Your task to perform on an android device: turn on wifi Image 0: 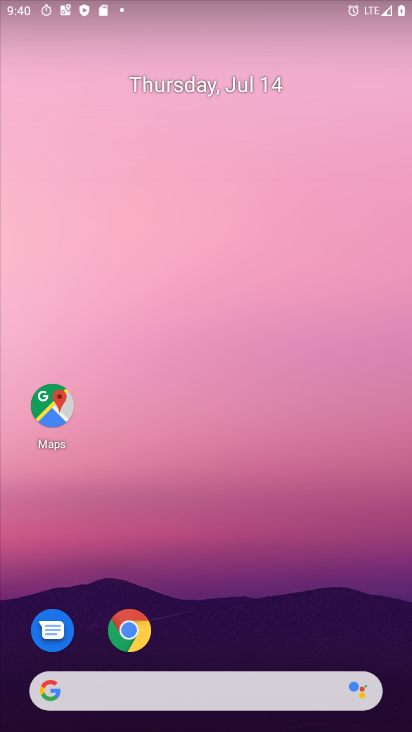
Step 0: drag from (221, 728) to (242, 186)
Your task to perform on an android device: turn on wifi Image 1: 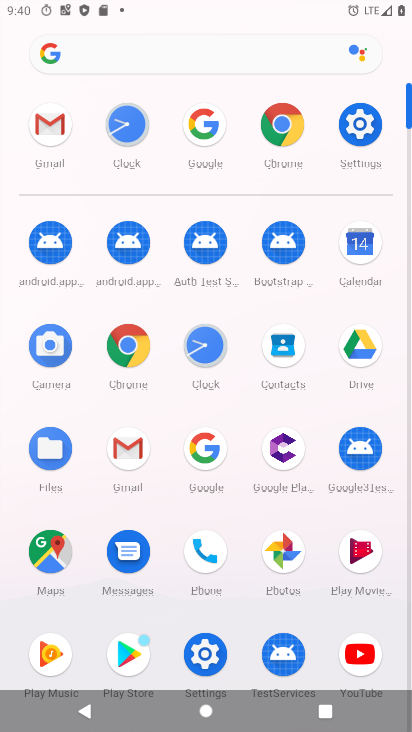
Step 1: click (360, 126)
Your task to perform on an android device: turn on wifi Image 2: 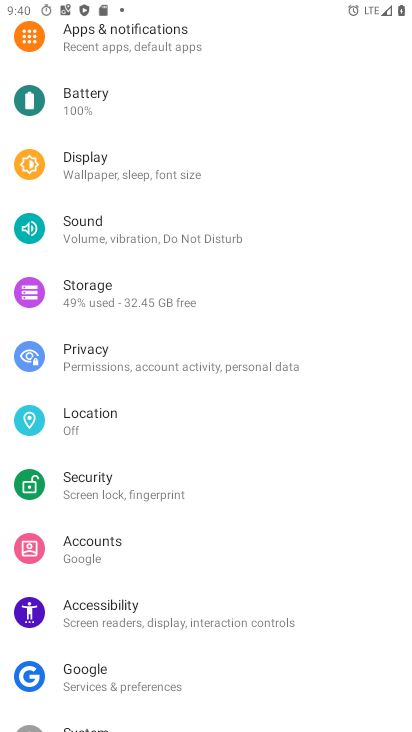
Step 2: drag from (140, 100) to (145, 635)
Your task to perform on an android device: turn on wifi Image 3: 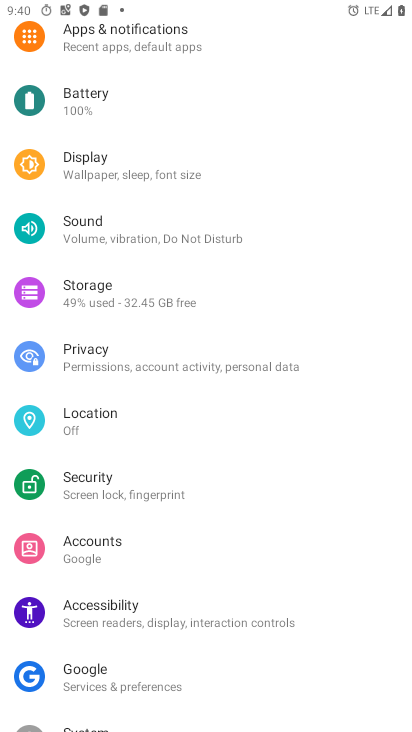
Step 3: drag from (236, 125) to (233, 652)
Your task to perform on an android device: turn on wifi Image 4: 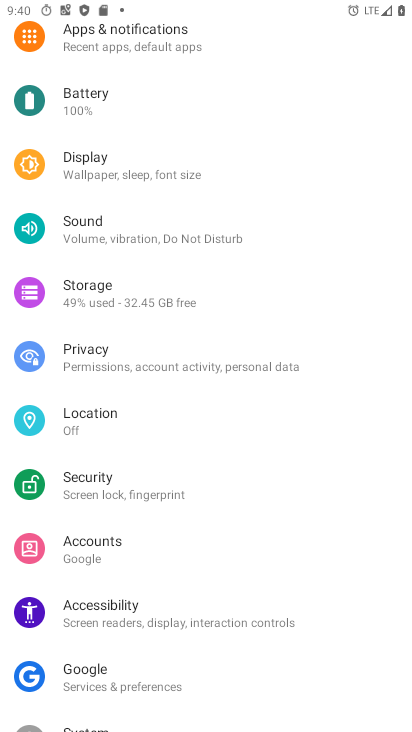
Step 4: drag from (165, 141) to (171, 631)
Your task to perform on an android device: turn on wifi Image 5: 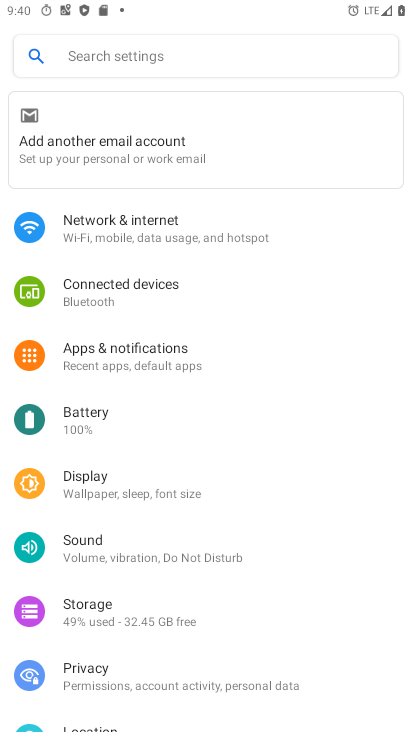
Step 5: click (120, 237)
Your task to perform on an android device: turn on wifi Image 6: 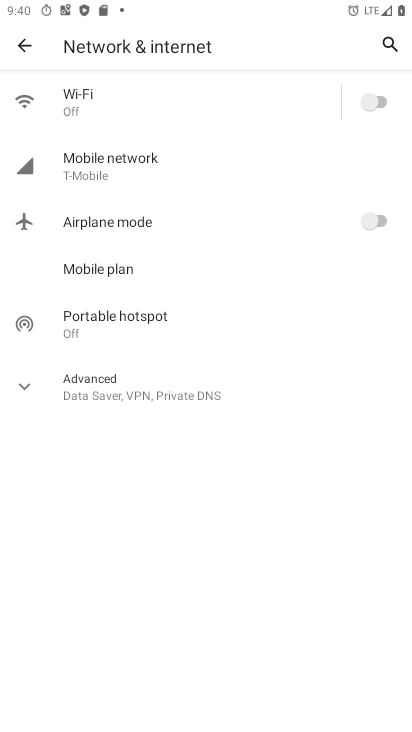
Step 6: click (377, 99)
Your task to perform on an android device: turn on wifi Image 7: 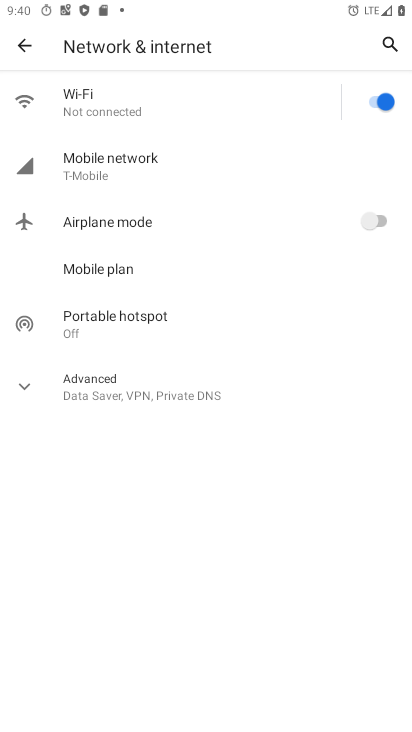
Step 7: task complete